Your task to perform on an android device: Open the phone app and click the voicemail tab. Image 0: 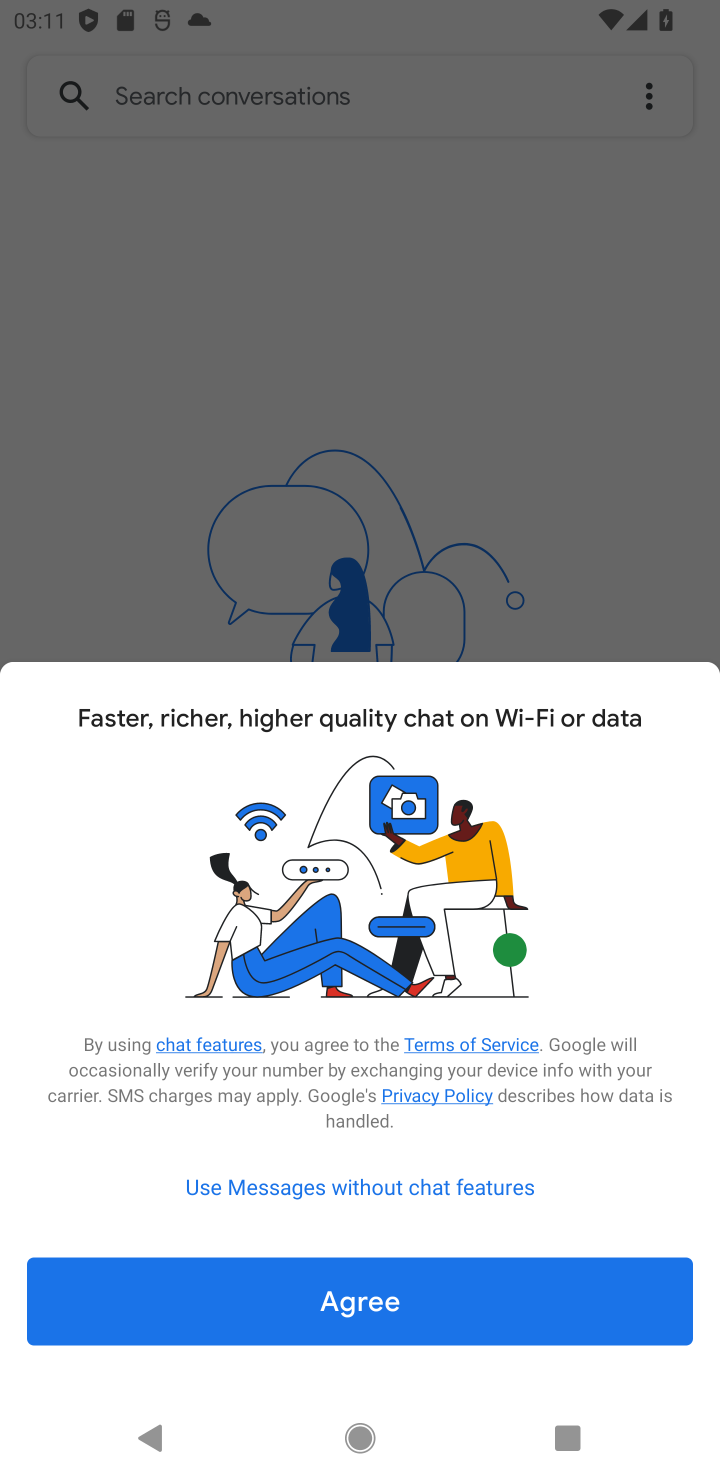
Step 0: press home button
Your task to perform on an android device: Open the phone app and click the voicemail tab. Image 1: 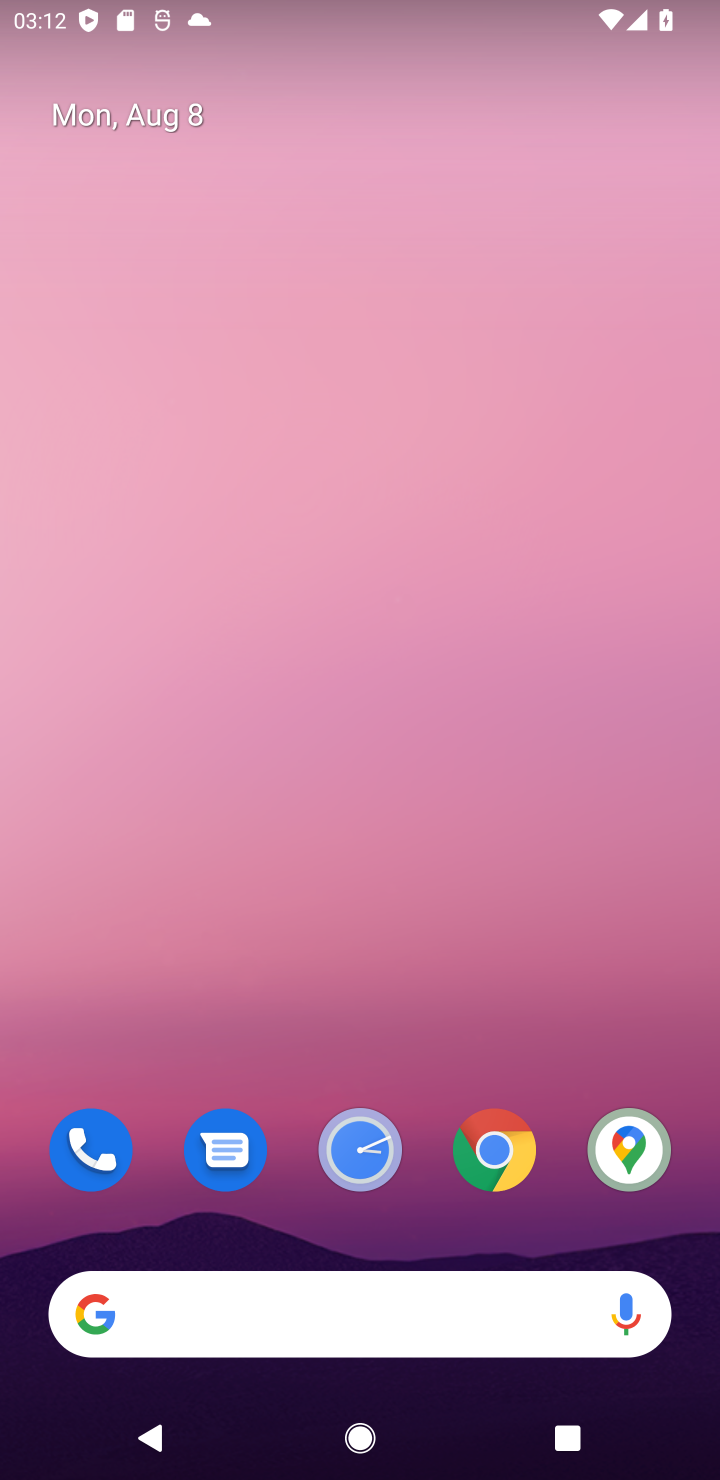
Step 1: drag from (45, 1439) to (352, 678)
Your task to perform on an android device: Open the phone app and click the voicemail tab. Image 2: 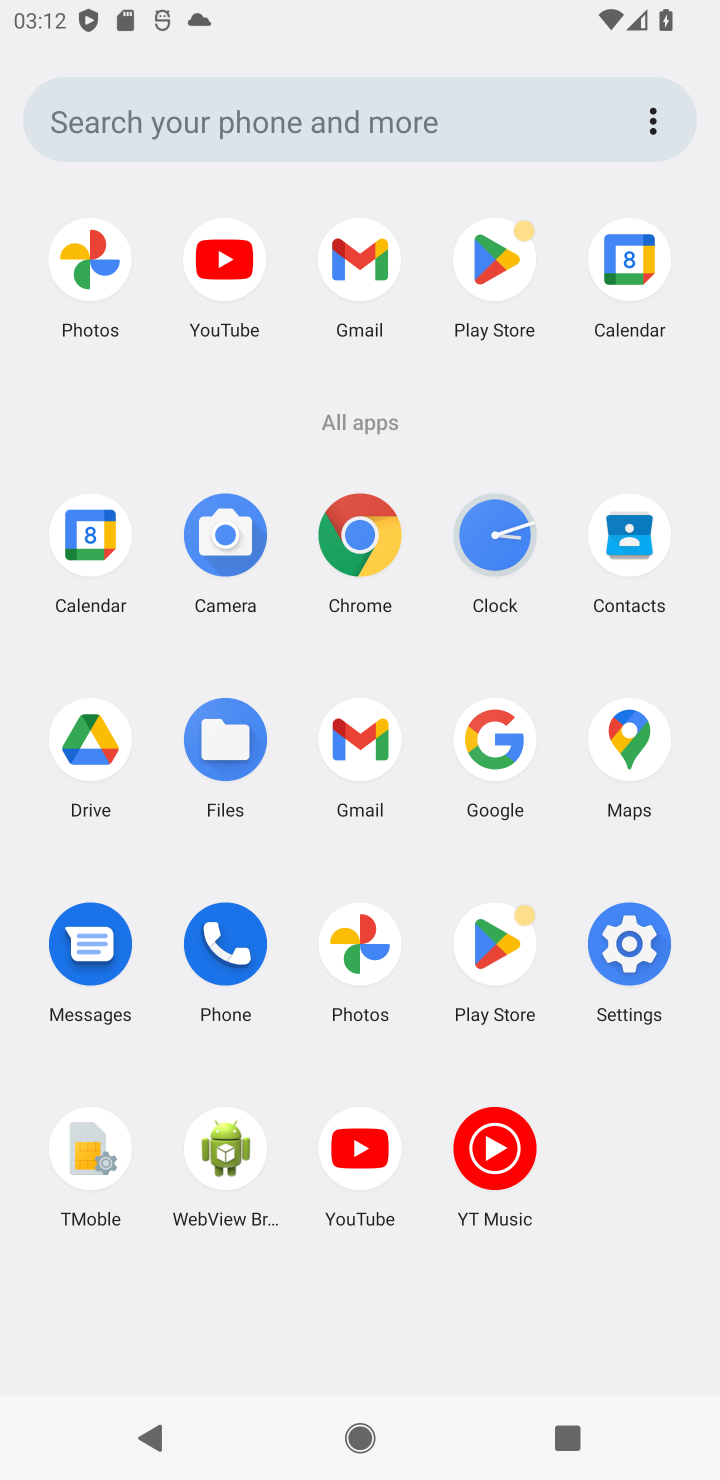
Step 2: click (216, 957)
Your task to perform on an android device: Open the phone app and click the voicemail tab. Image 3: 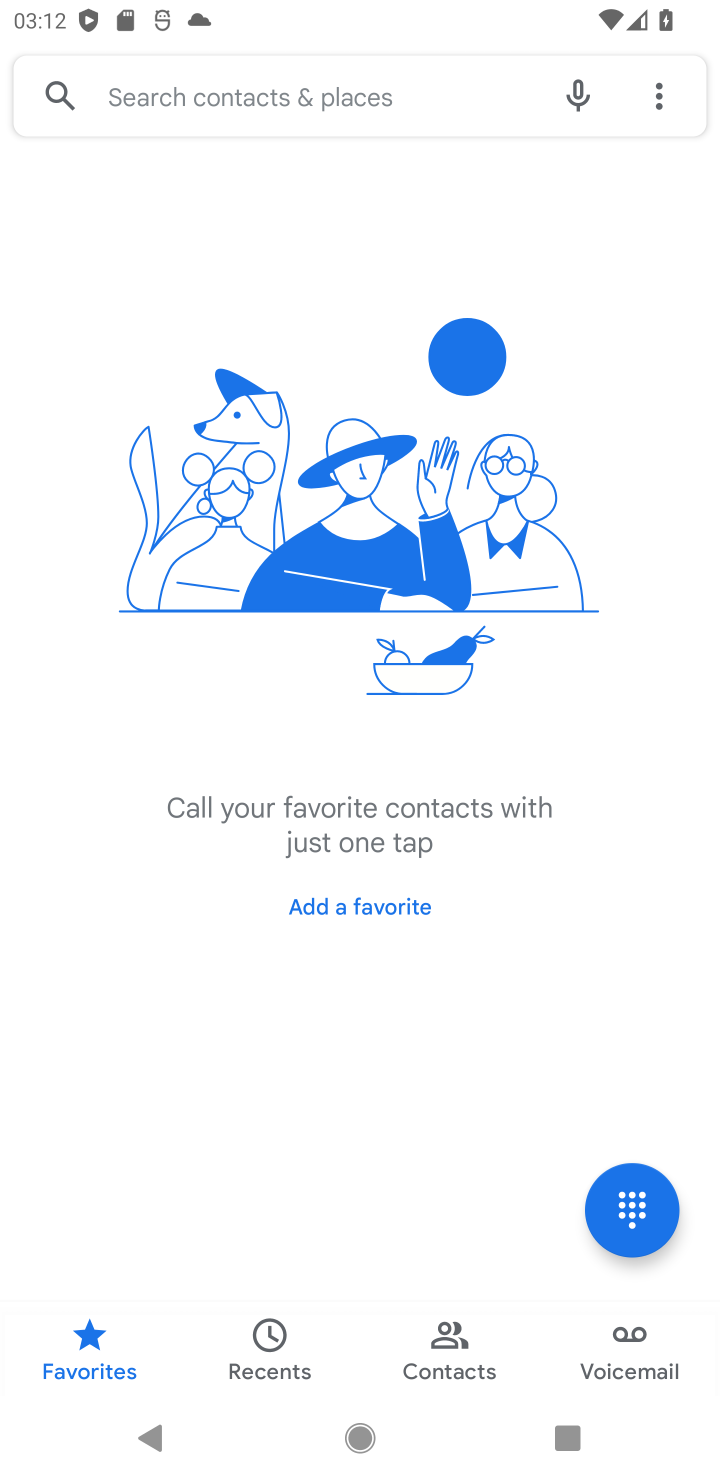
Step 3: click (636, 1357)
Your task to perform on an android device: Open the phone app and click the voicemail tab. Image 4: 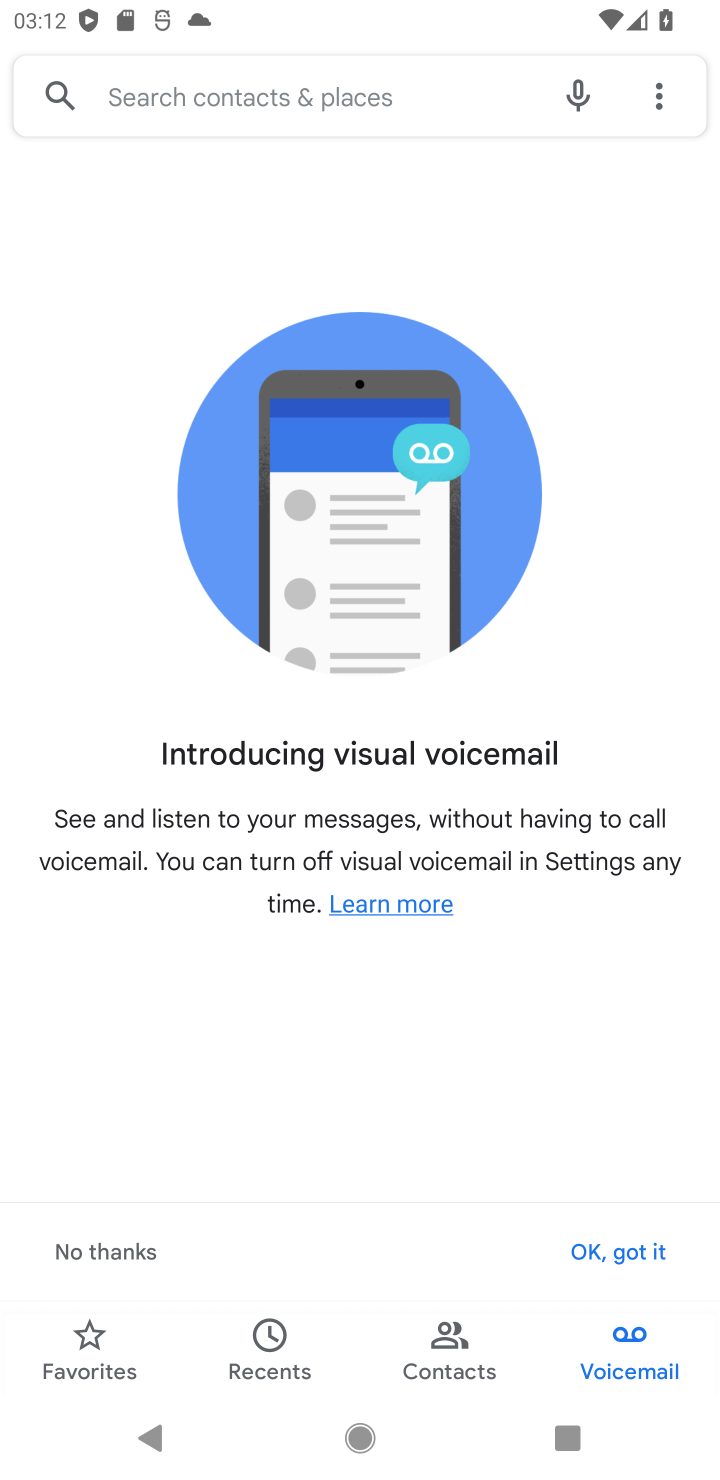
Step 4: task complete